Your task to perform on an android device: open chrome privacy settings Image 0: 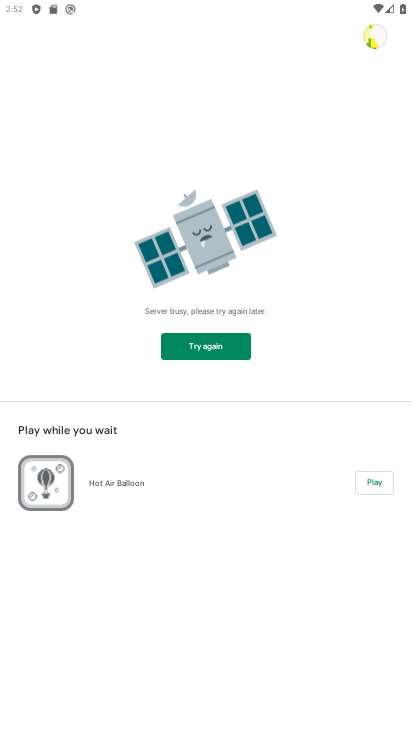
Step 0: press home button
Your task to perform on an android device: open chrome privacy settings Image 1: 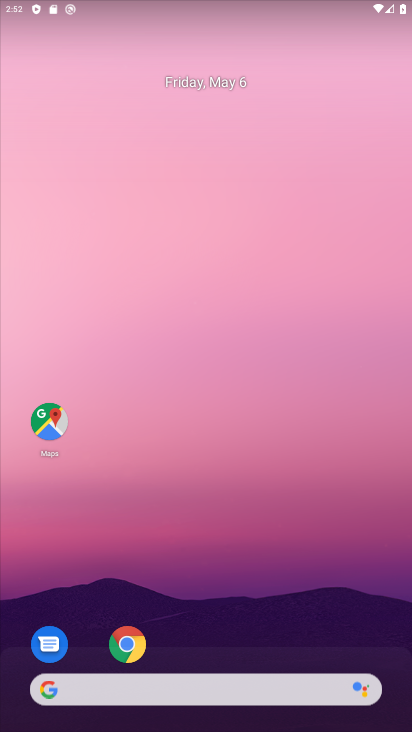
Step 1: click (127, 646)
Your task to perform on an android device: open chrome privacy settings Image 2: 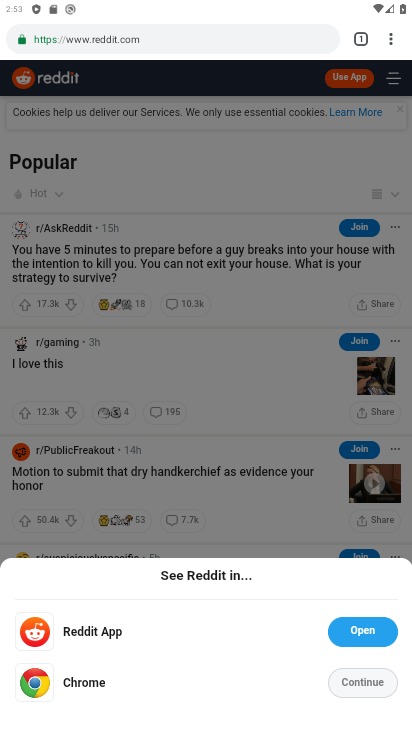
Step 2: drag from (390, 36) to (282, 472)
Your task to perform on an android device: open chrome privacy settings Image 3: 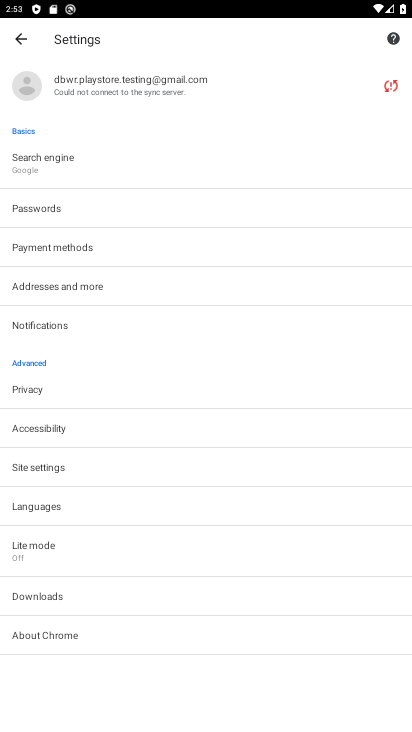
Step 3: click (45, 389)
Your task to perform on an android device: open chrome privacy settings Image 4: 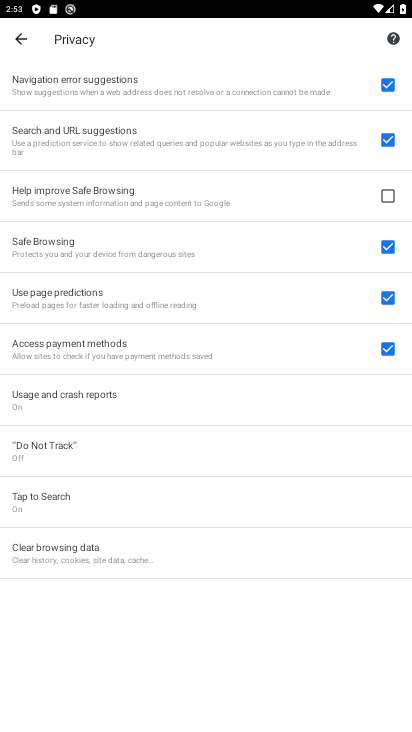
Step 4: task complete